Your task to perform on an android device: Open battery settings Image 0: 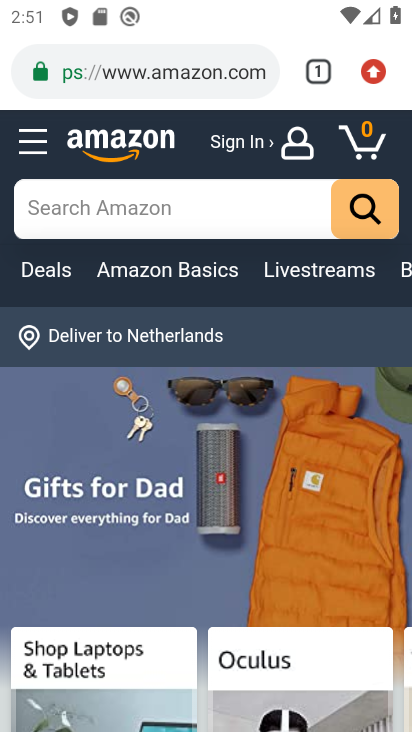
Step 0: press home button
Your task to perform on an android device: Open battery settings Image 1: 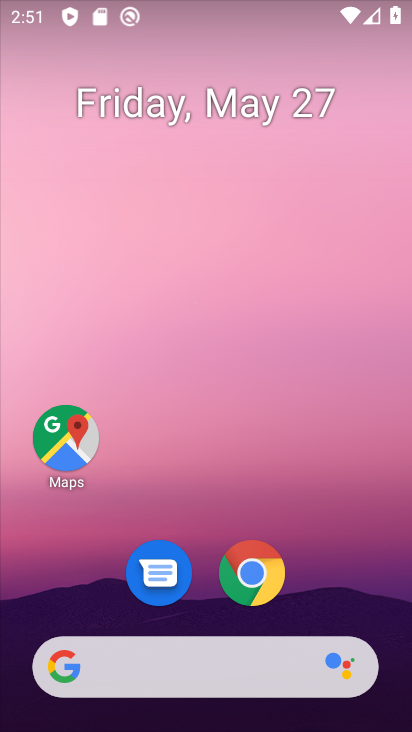
Step 1: drag from (195, 480) to (171, 45)
Your task to perform on an android device: Open battery settings Image 2: 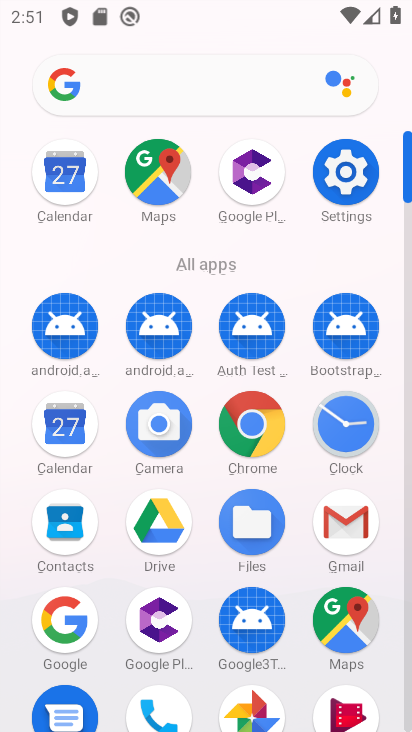
Step 2: click (346, 164)
Your task to perform on an android device: Open battery settings Image 3: 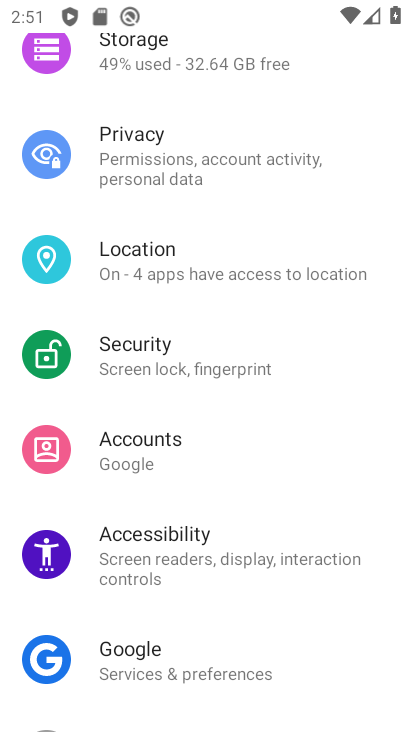
Step 3: drag from (234, 218) to (266, 607)
Your task to perform on an android device: Open battery settings Image 4: 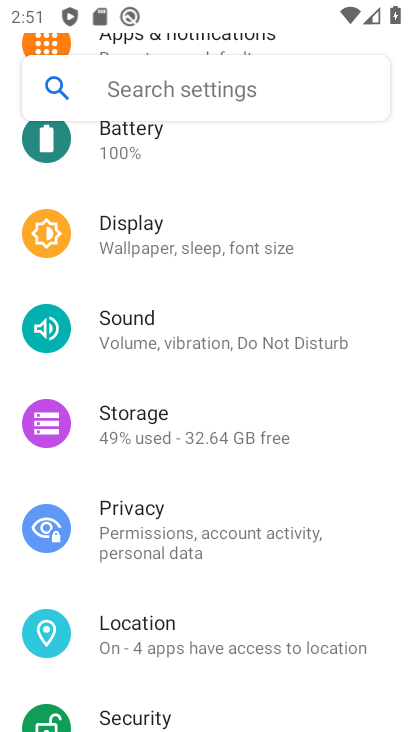
Step 4: click (217, 137)
Your task to perform on an android device: Open battery settings Image 5: 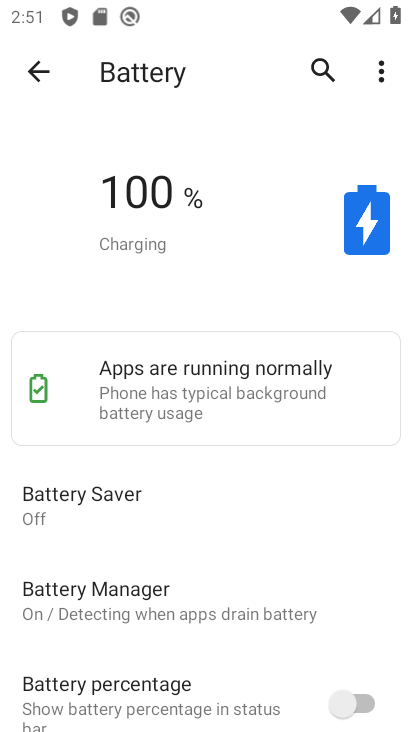
Step 5: task complete